Your task to perform on an android device: Go to settings Image 0: 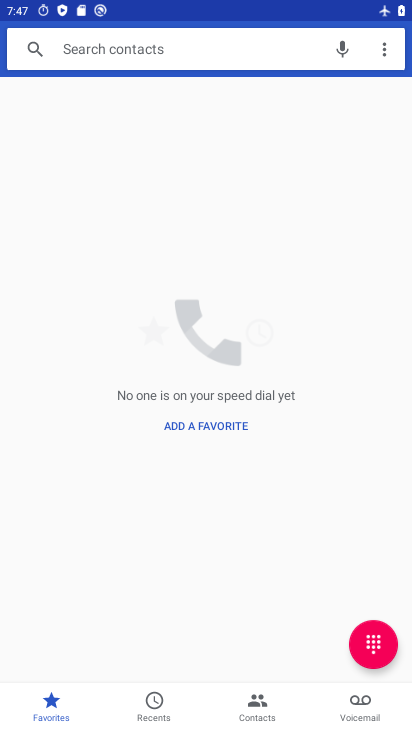
Step 0: press home button
Your task to perform on an android device: Go to settings Image 1: 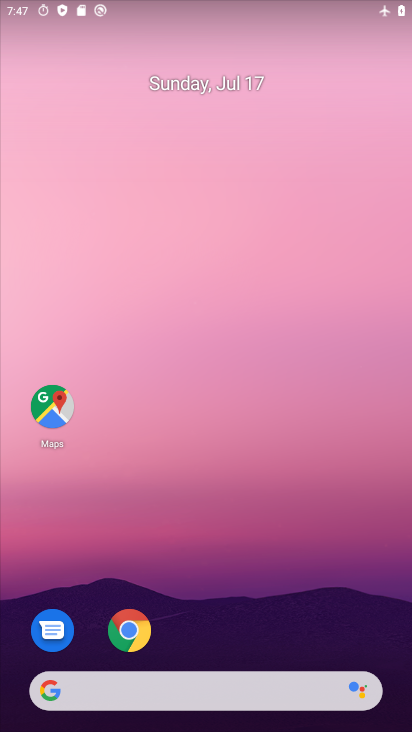
Step 1: drag from (290, 629) to (303, 1)
Your task to perform on an android device: Go to settings Image 2: 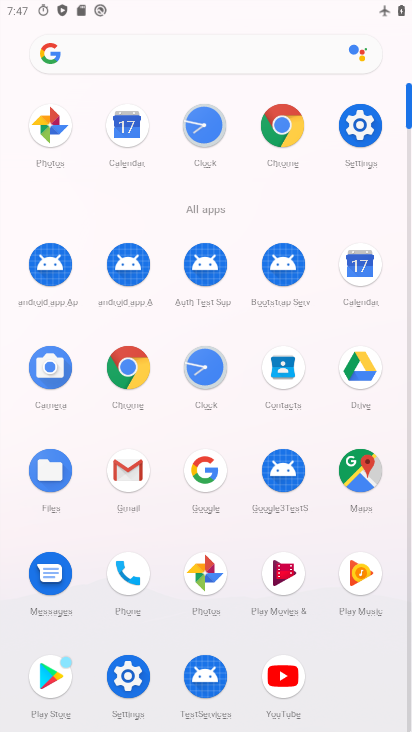
Step 2: click (383, 157)
Your task to perform on an android device: Go to settings Image 3: 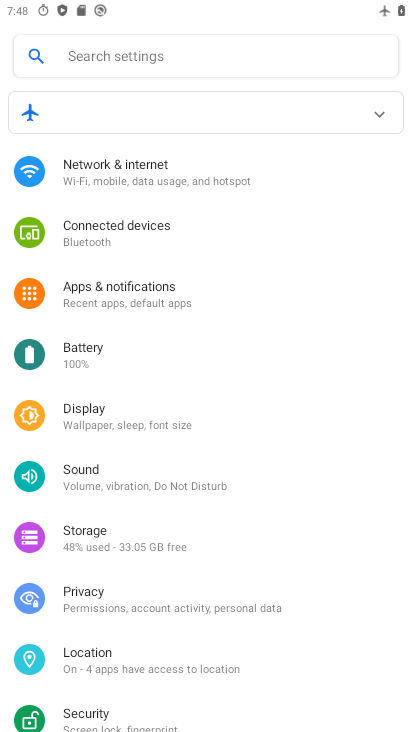
Step 3: task complete